Your task to perform on an android device: Go to eBay Image 0: 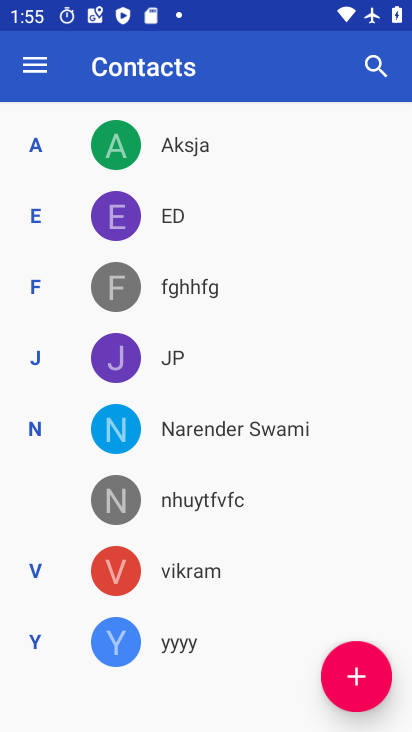
Step 0: press home button
Your task to perform on an android device: Go to eBay Image 1: 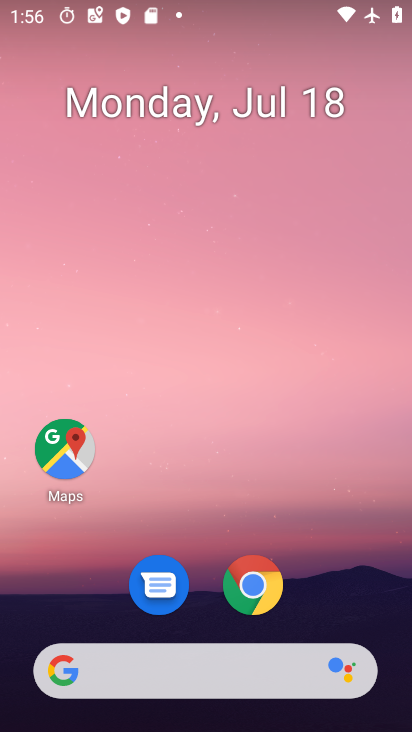
Step 1: click (256, 597)
Your task to perform on an android device: Go to eBay Image 2: 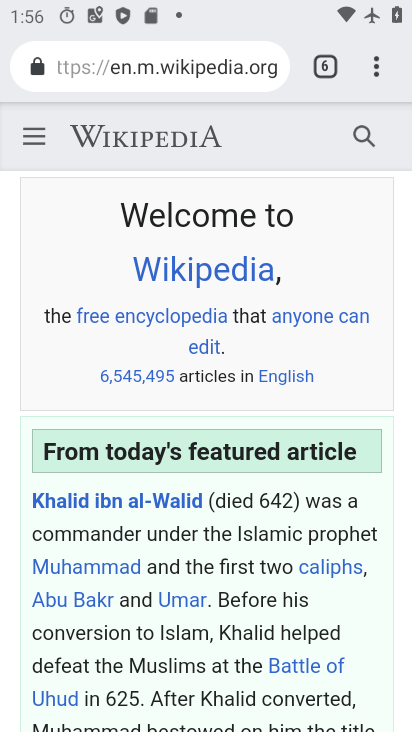
Step 2: drag from (375, 72) to (225, 127)
Your task to perform on an android device: Go to eBay Image 3: 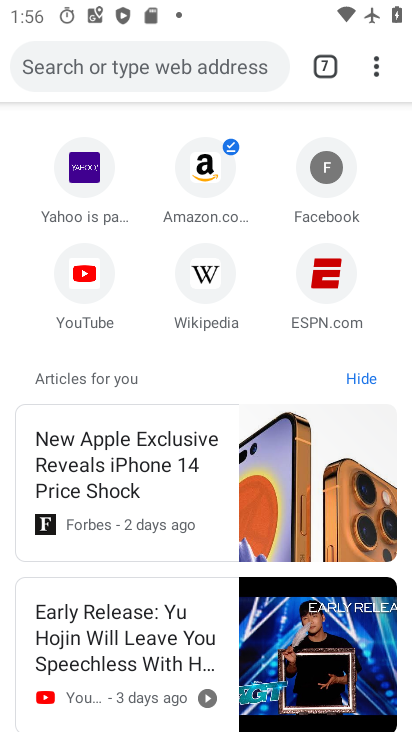
Step 3: click (162, 60)
Your task to perform on an android device: Go to eBay Image 4: 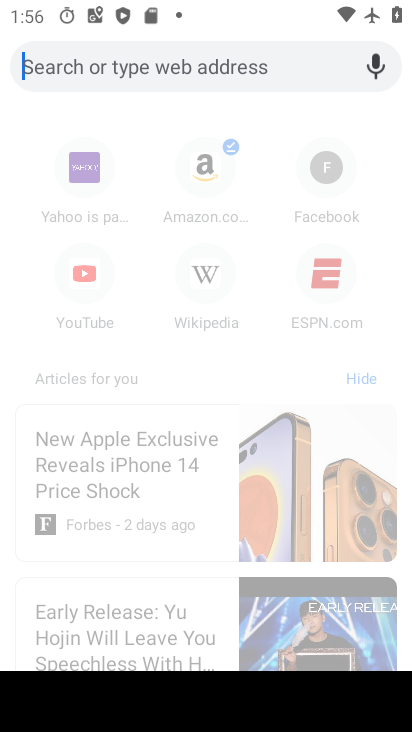
Step 4: type "ebay"
Your task to perform on an android device: Go to eBay Image 5: 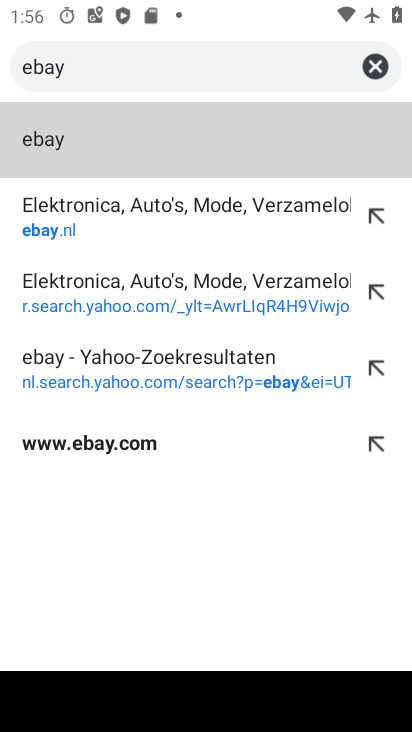
Step 5: click (156, 208)
Your task to perform on an android device: Go to eBay Image 6: 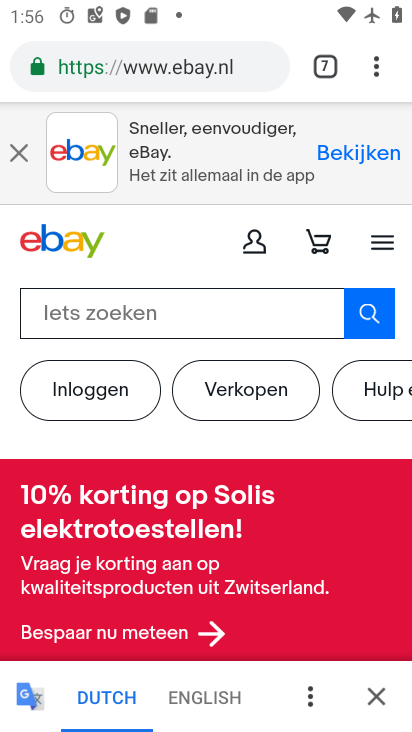
Step 6: click (214, 701)
Your task to perform on an android device: Go to eBay Image 7: 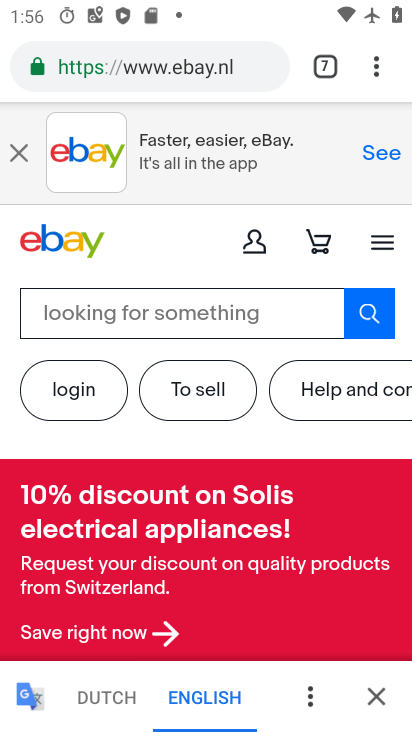
Step 7: task complete